Your task to perform on an android device: move an email to a new category in the gmail app Image 0: 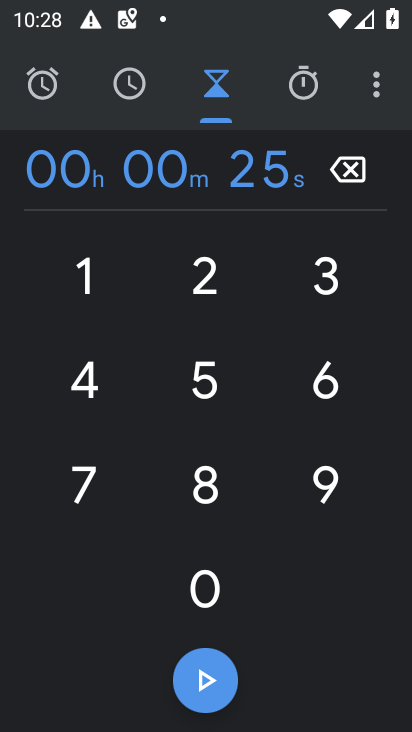
Step 0: press home button
Your task to perform on an android device: move an email to a new category in the gmail app Image 1: 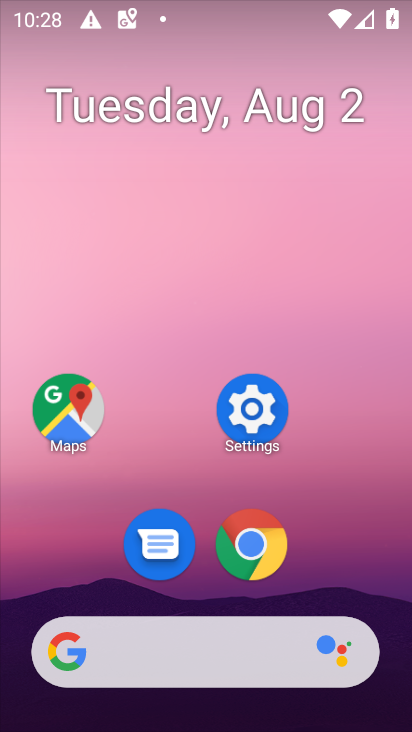
Step 1: drag from (184, 638) to (318, 15)
Your task to perform on an android device: move an email to a new category in the gmail app Image 2: 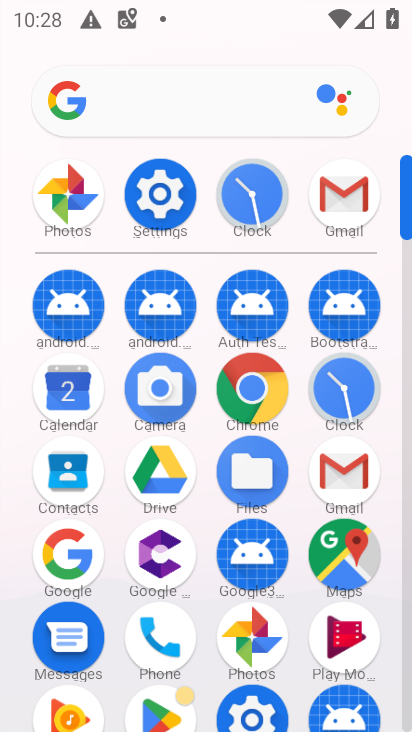
Step 2: click (341, 202)
Your task to perform on an android device: move an email to a new category in the gmail app Image 3: 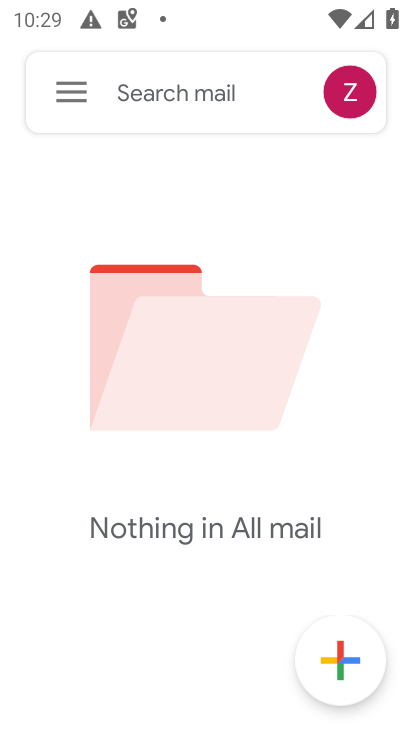
Step 3: task complete